Your task to perform on an android device: Turn on the flashlight Image 0: 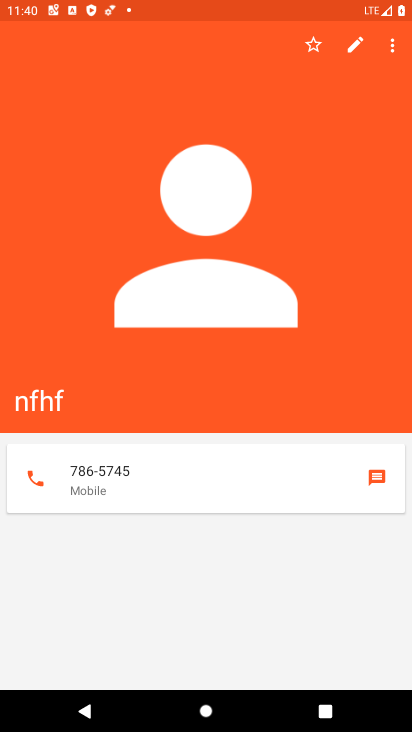
Step 0: press home button
Your task to perform on an android device: Turn on the flashlight Image 1: 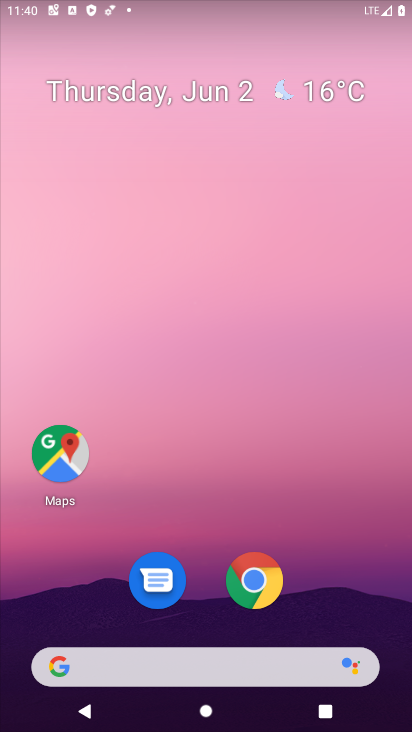
Step 1: task complete